Your task to perform on an android device: open chrome privacy settings Image 0: 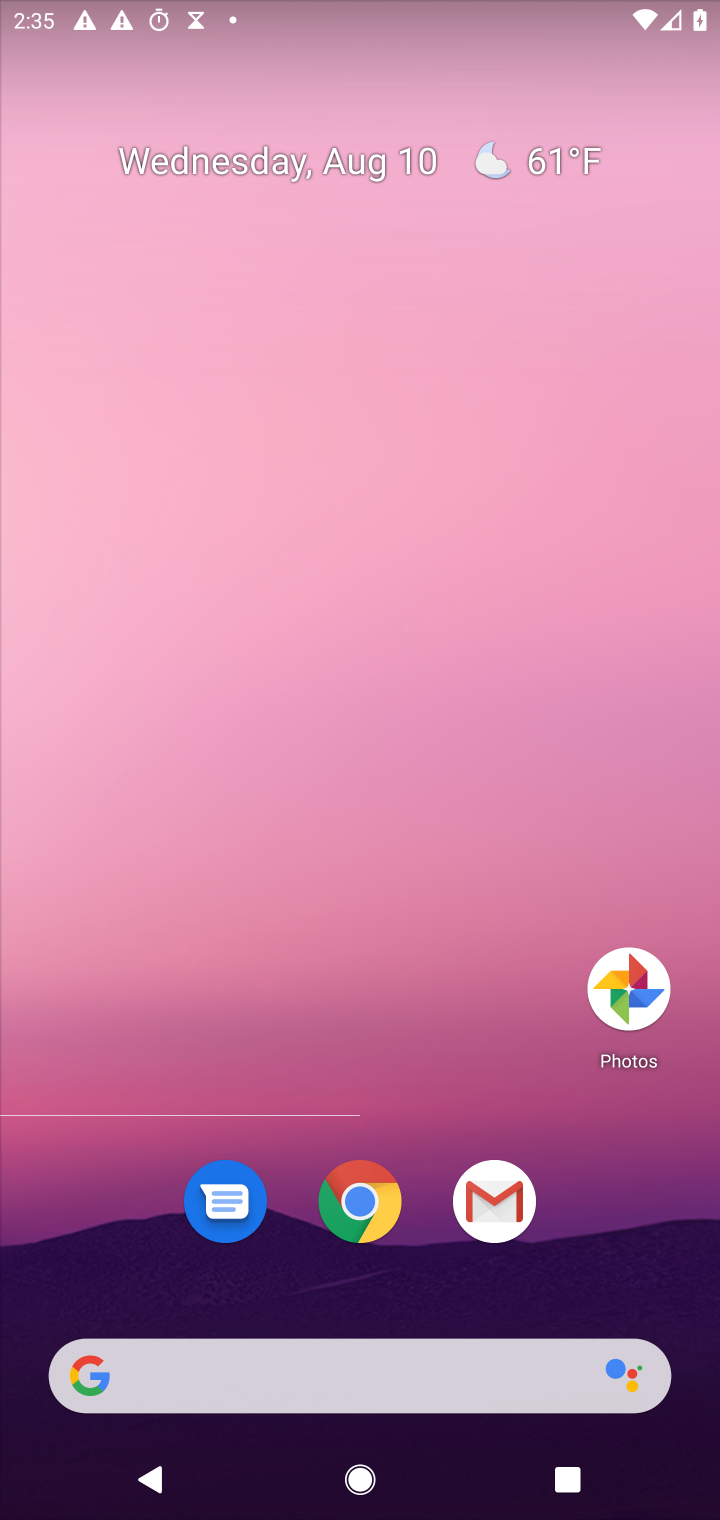
Step 0: press home button
Your task to perform on an android device: open chrome privacy settings Image 1: 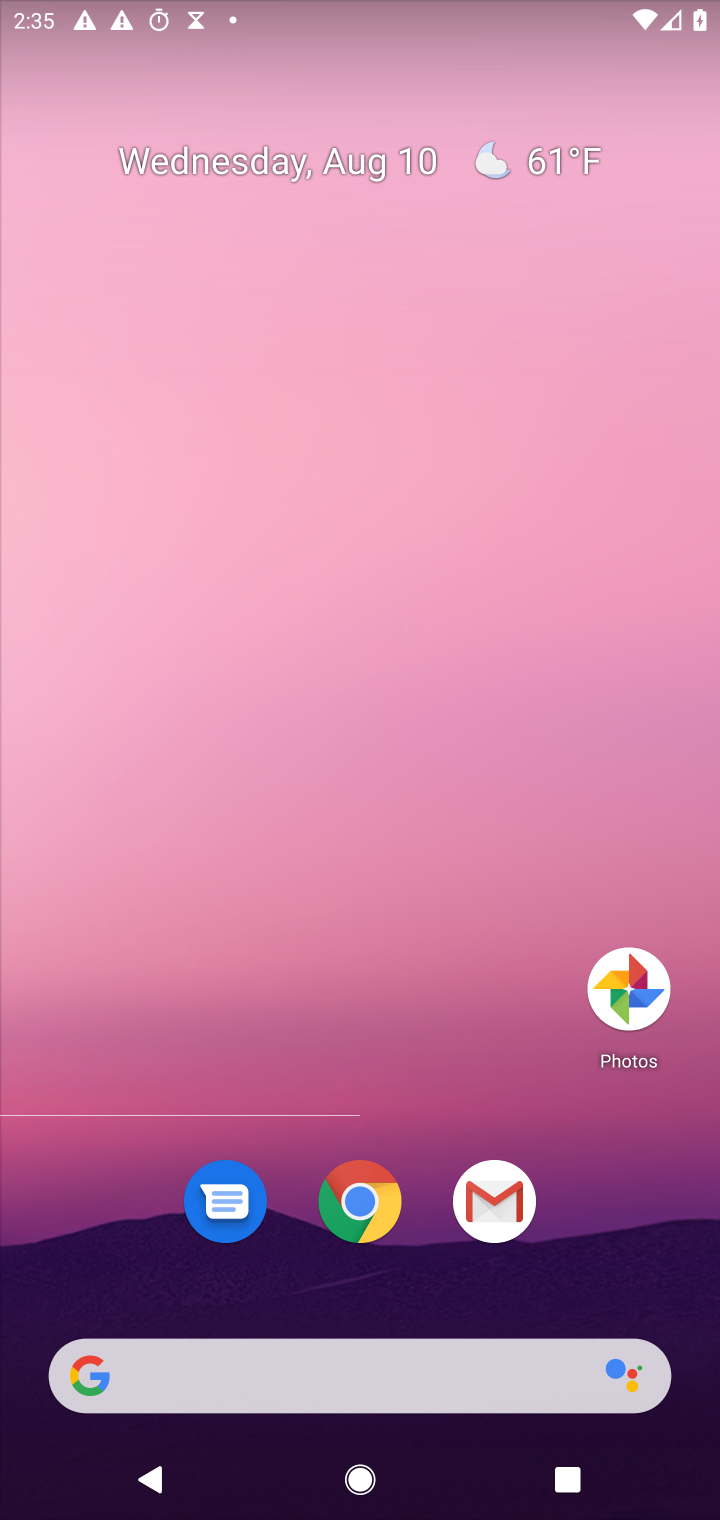
Step 1: drag from (406, 1308) to (208, 2)
Your task to perform on an android device: open chrome privacy settings Image 2: 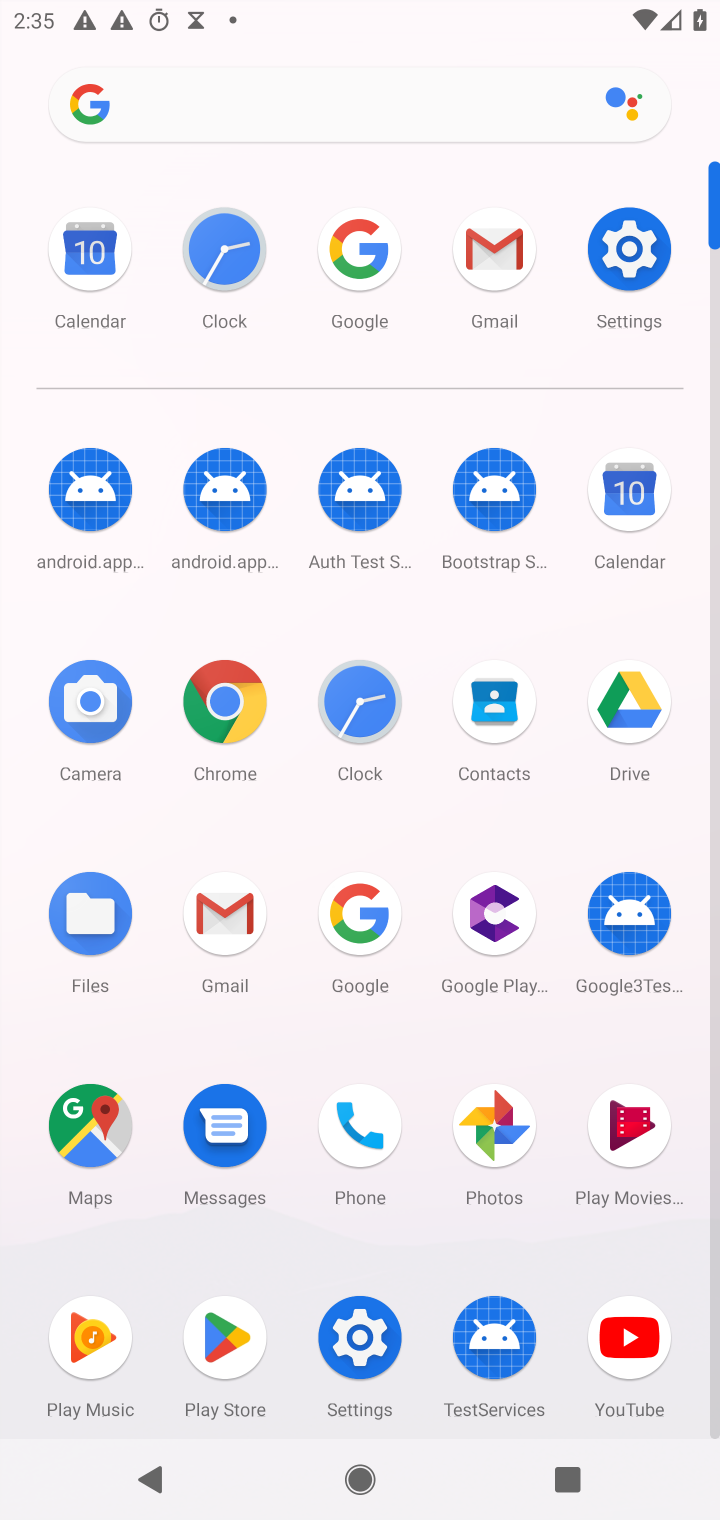
Step 2: click (629, 252)
Your task to perform on an android device: open chrome privacy settings Image 3: 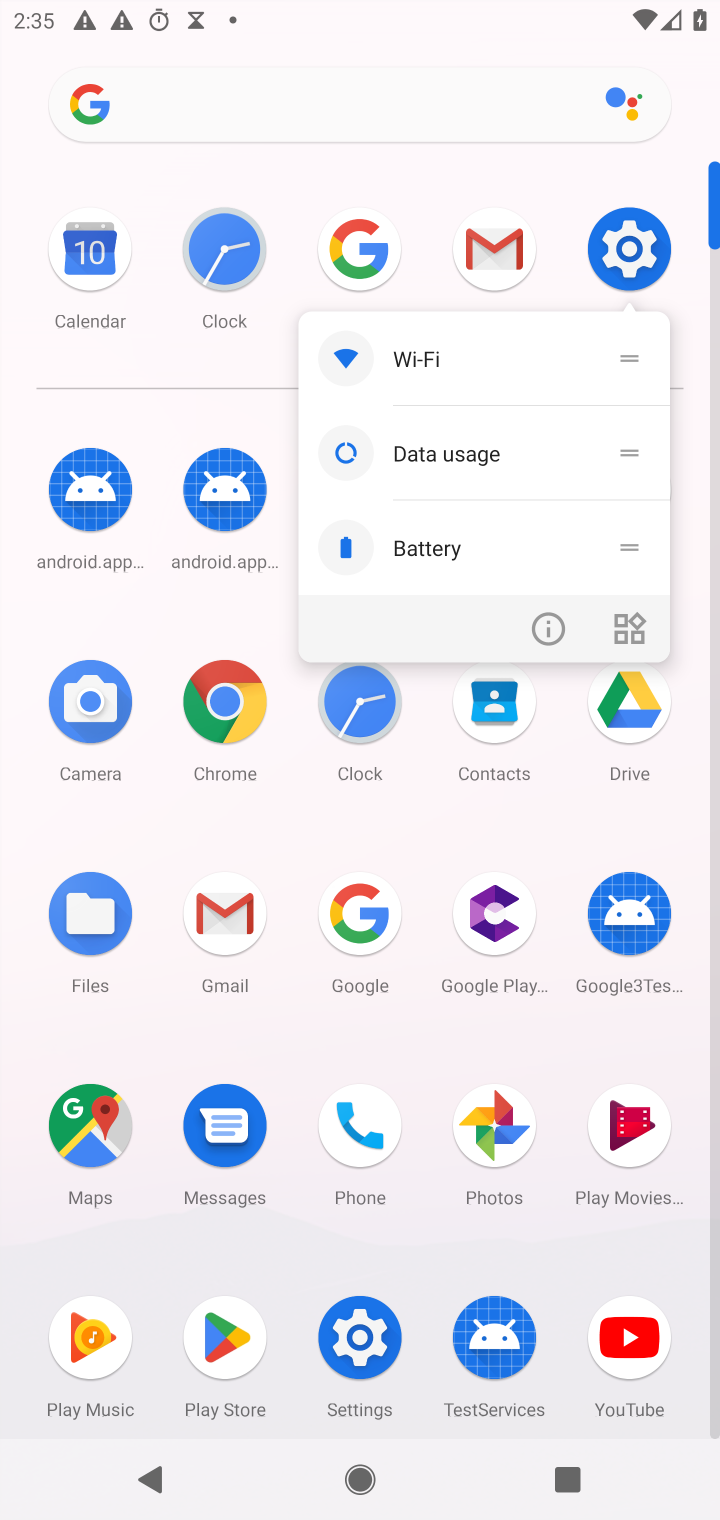
Step 3: click (601, 247)
Your task to perform on an android device: open chrome privacy settings Image 4: 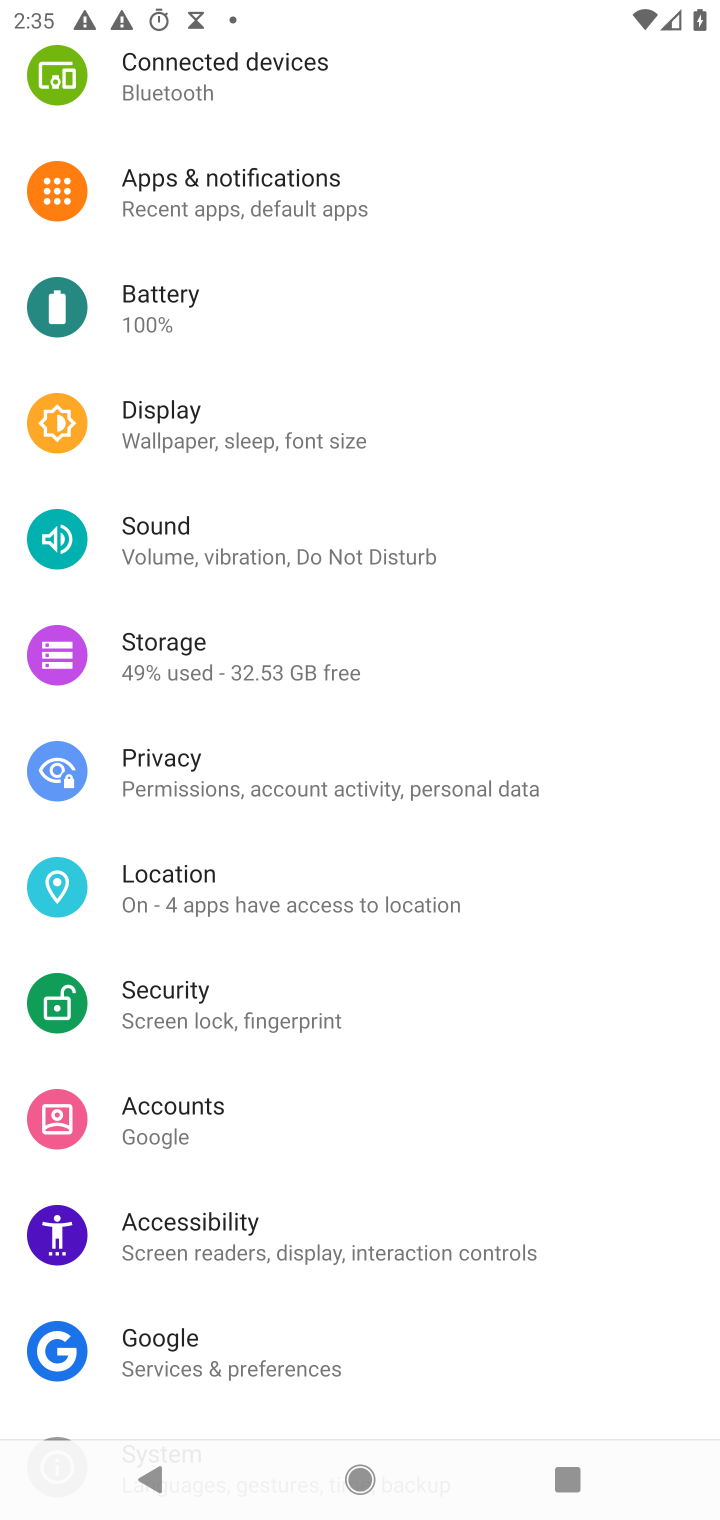
Step 4: click (157, 784)
Your task to perform on an android device: open chrome privacy settings Image 5: 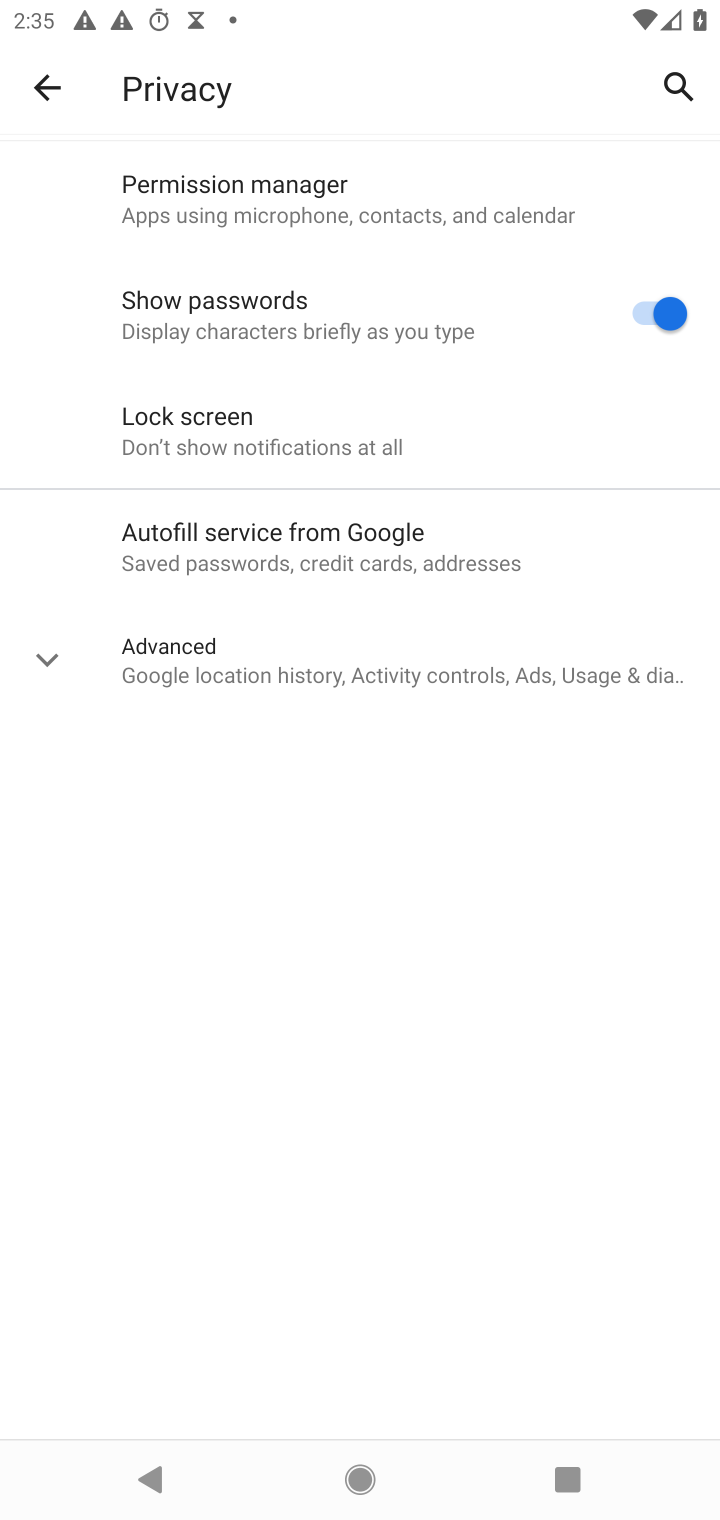
Step 5: task complete